Your task to perform on an android device: Open ESPN.com Image 0: 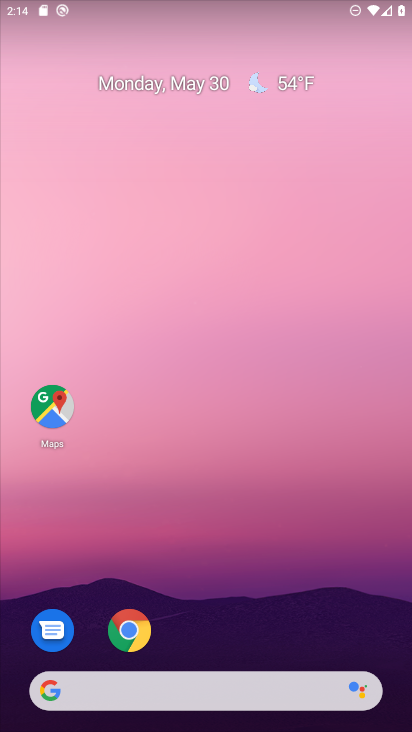
Step 0: click (140, 630)
Your task to perform on an android device: Open ESPN.com Image 1: 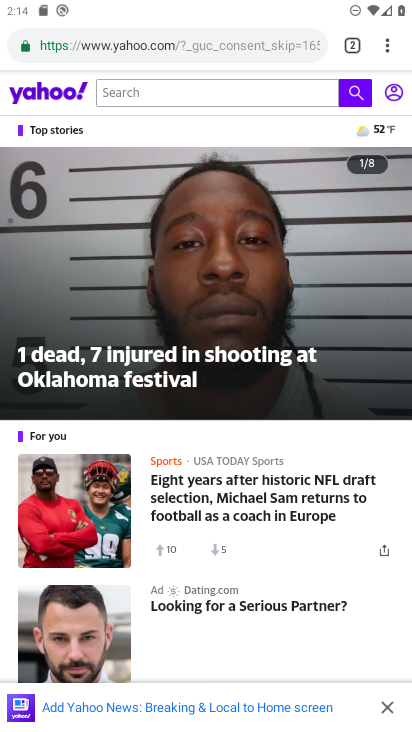
Step 1: click (180, 56)
Your task to perform on an android device: Open ESPN.com Image 2: 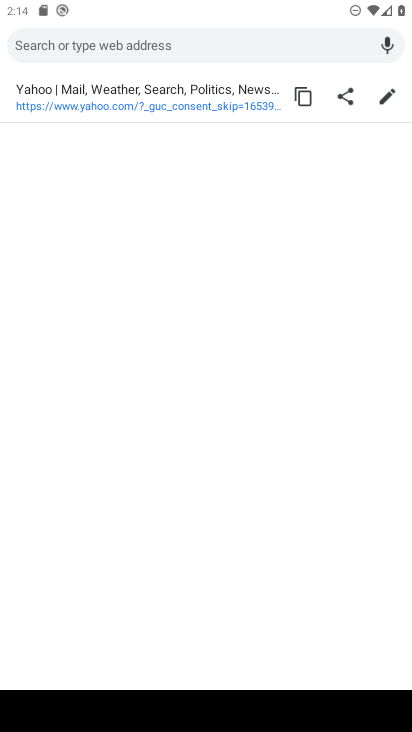
Step 2: type "espn.com"
Your task to perform on an android device: Open ESPN.com Image 3: 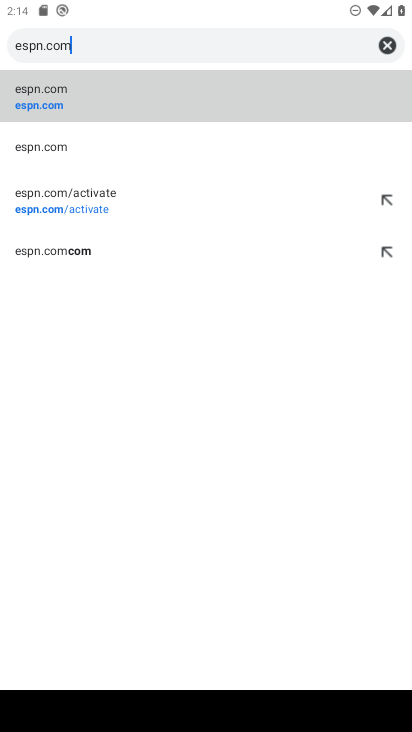
Step 3: click (152, 101)
Your task to perform on an android device: Open ESPN.com Image 4: 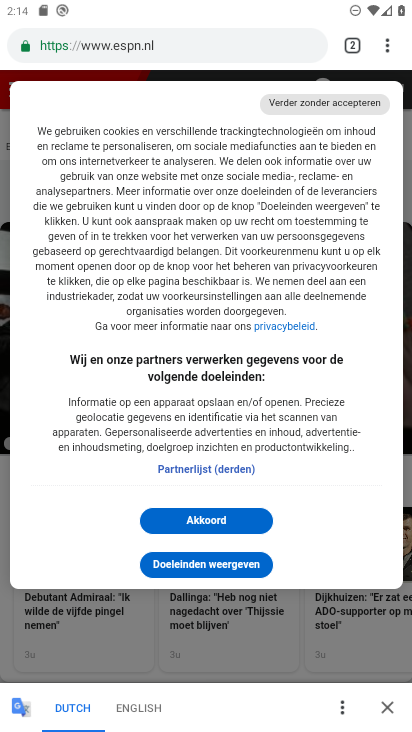
Step 4: task complete